Your task to perform on an android device: Clear the cart on amazon. Add "logitech g502" to the cart on amazon, then select checkout. Image 0: 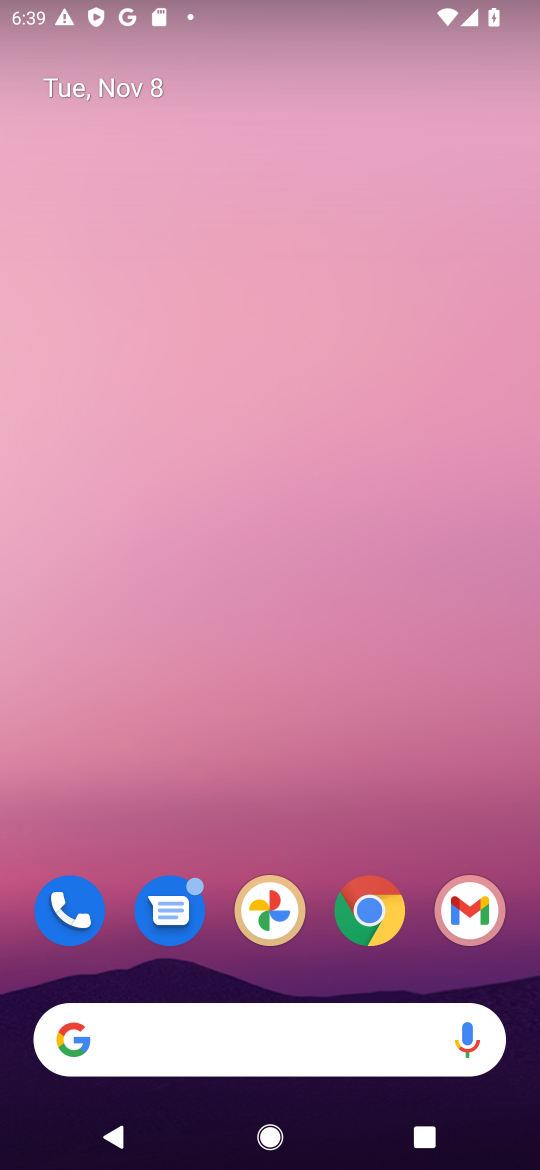
Step 0: click (370, 916)
Your task to perform on an android device: Clear the cart on amazon. Add "logitech g502" to the cart on amazon, then select checkout. Image 1: 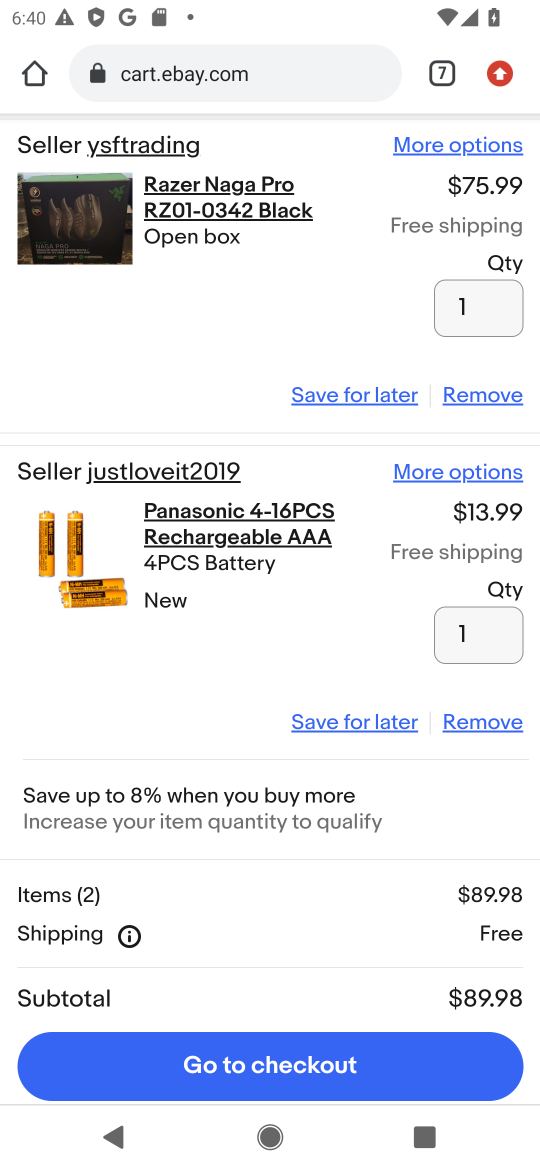
Step 1: click (443, 82)
Your task to perform on an android device: Clear the cart on amazon. Add "logitech g502" to the cart on amazon, then select checkout. Image 2: 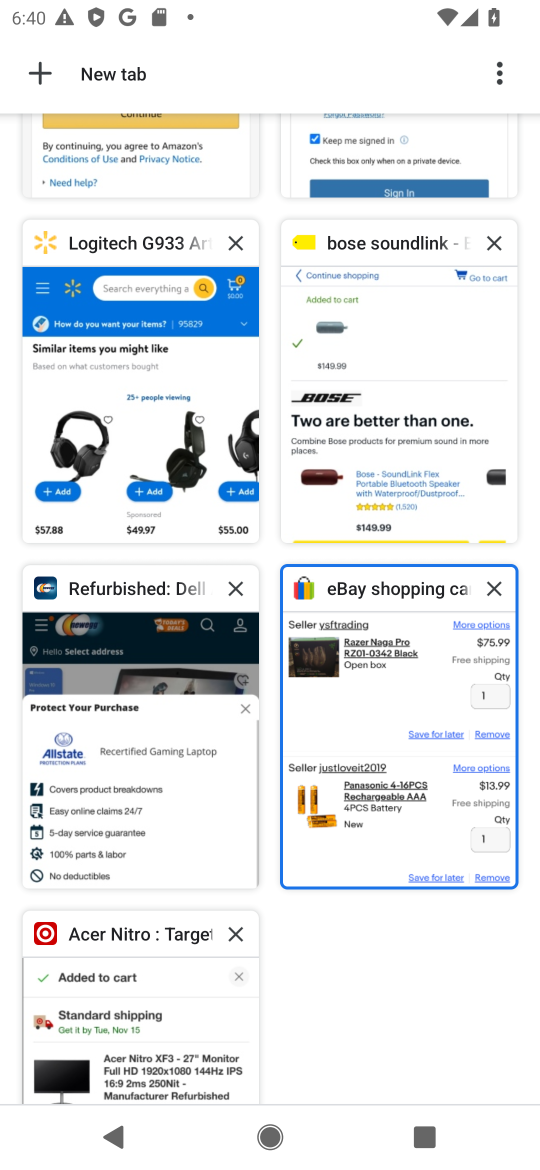
Step 2: click (172, 160)
Your task to perform on an android device: Clear the cart on amazon. Add "logitech g502" to the cart on amazon, then select checkout. Image 3: 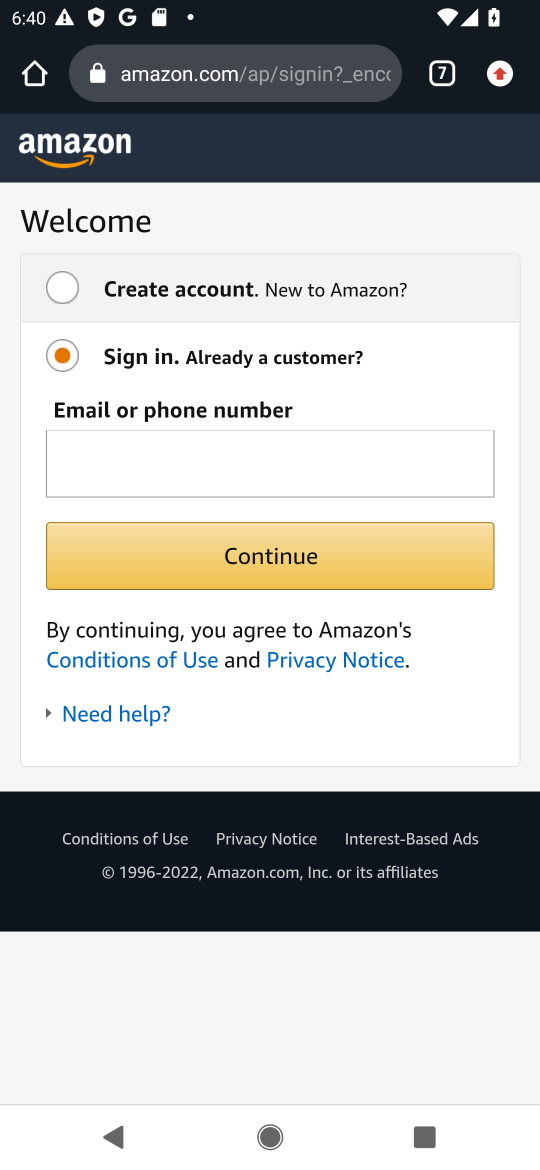
Step 3: press back button
Your task to perform on an android device: Clear the cart on amazon. Add "logitech g502" to the cart on amazon, then select checkout. Image 4: 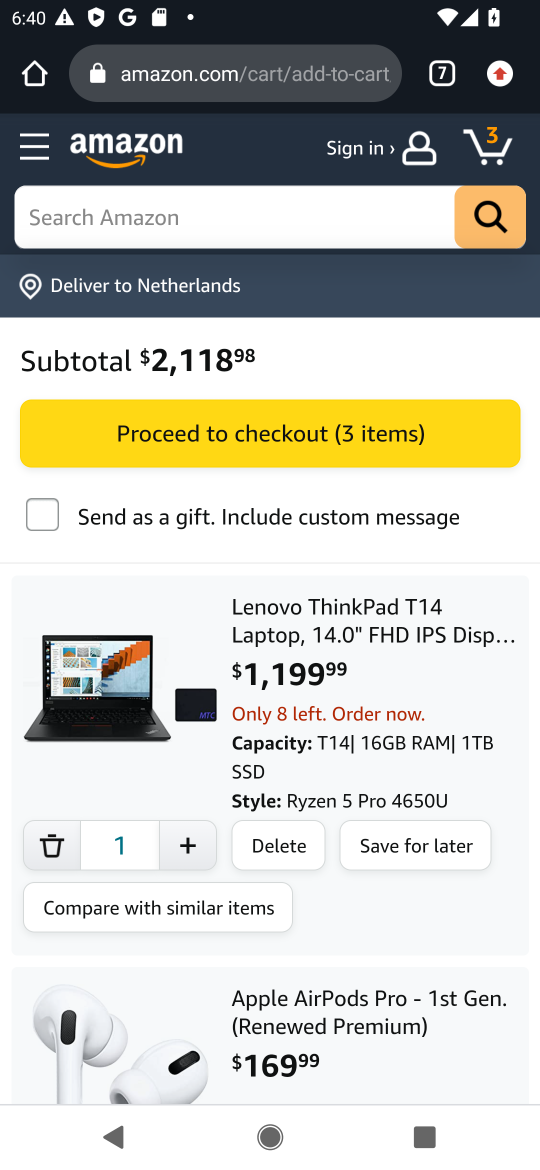
Step 4: click (177, 215)
Your task to perform on an android device: Clear the cart on amazon. Add "logitech g502" to the cart on amazon, then select checkout. Image 5: 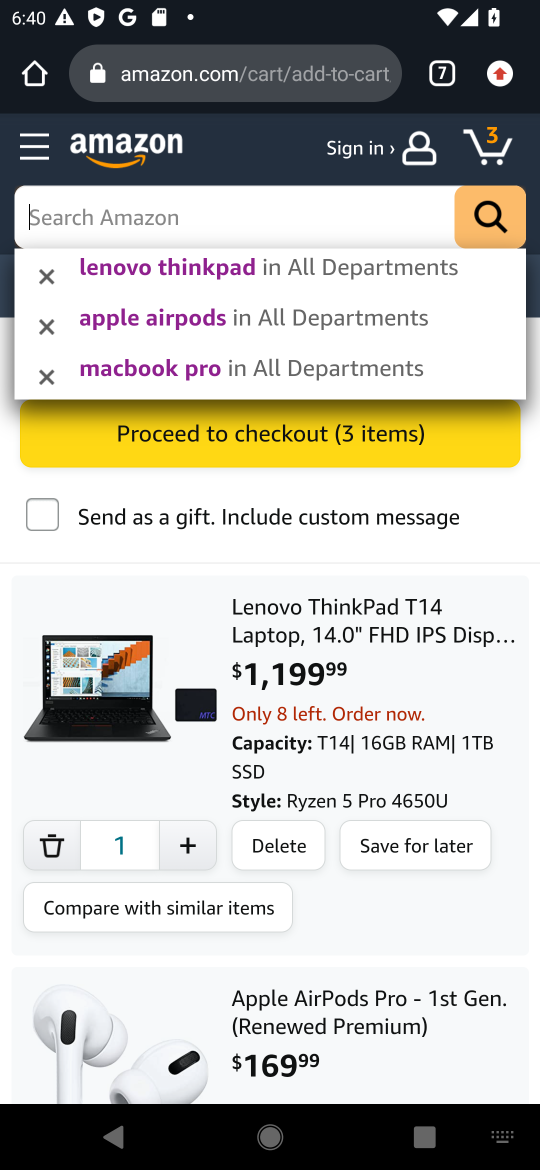
Step 5: type "logitech g502"
Your task to perform on an android device: Clear the cart on amazon. Add "logitech g502" to the cart on amazon, then select checkout. Image 6: 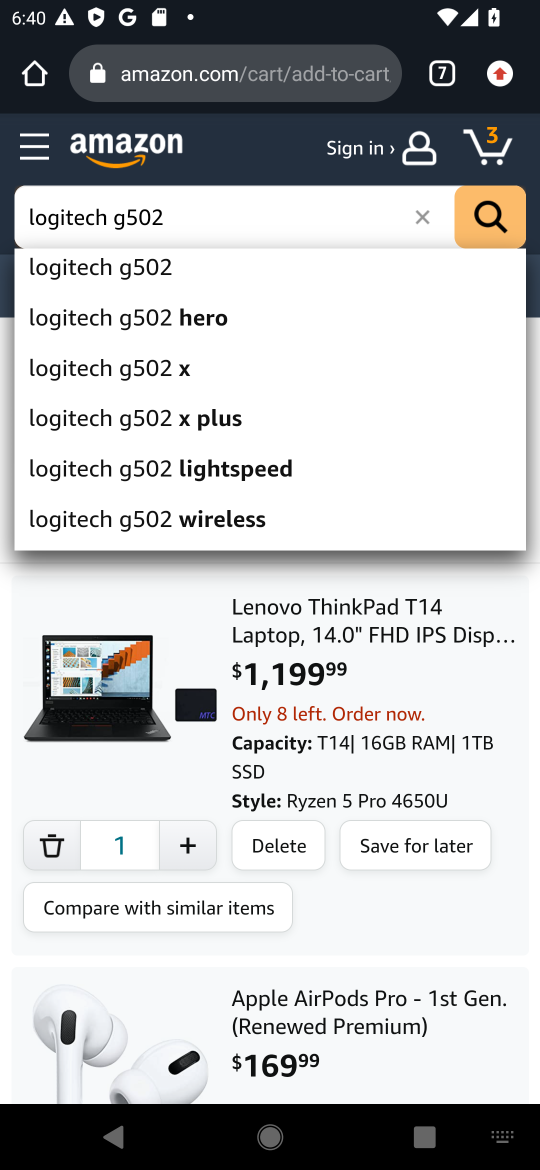
Step 6: click (136, 275)
Your task to perform on an android device: Clear the cart on amazon. Add "logitech g502" to the cart on amazon, then select checkout. Image 7: 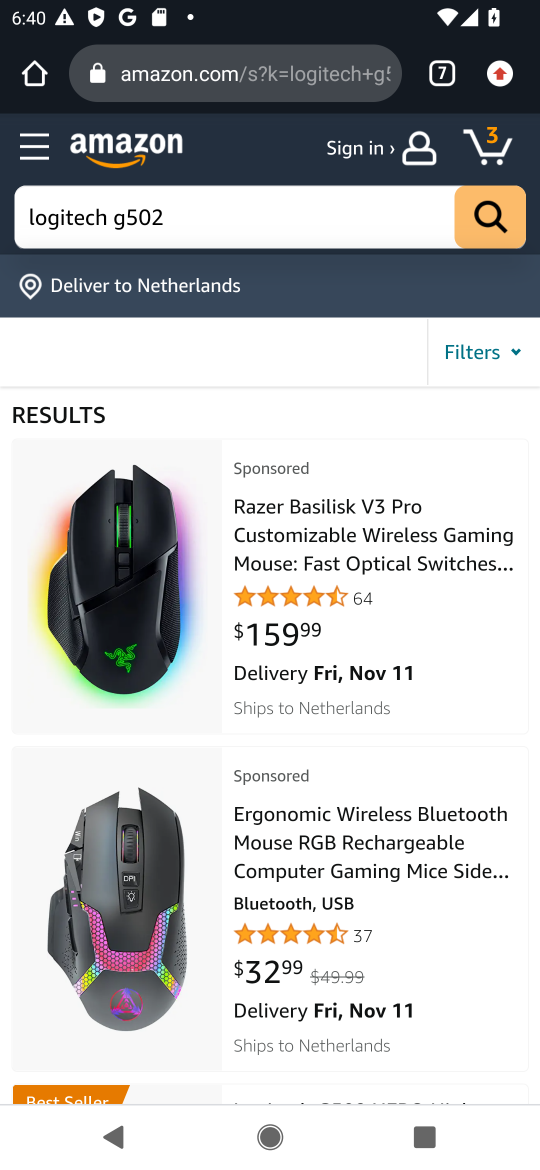
Step 7: drag from (403, 762) to (448, 411)
Your task to perform on an android device: Clear the cart on amazon. Add "logitech g502" to the cart on amazon, then select checkout. Image 8: 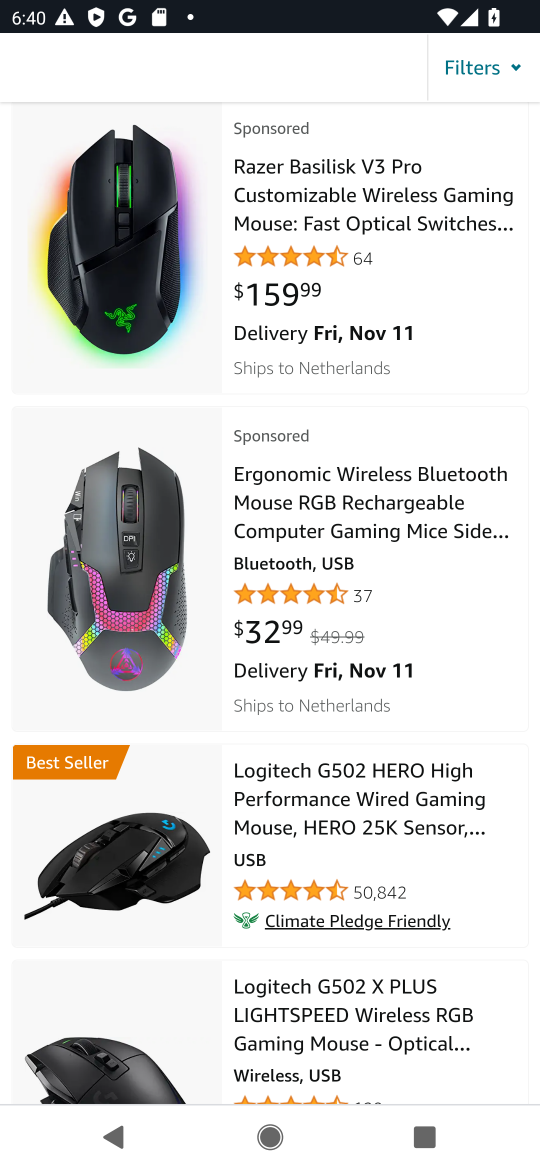
Step 8: click (376, 799)
Your task to perform on an android device: Clear the cart on amazon. Add "logitech g502" to the cart on amazon, then select checkout. Image 9: 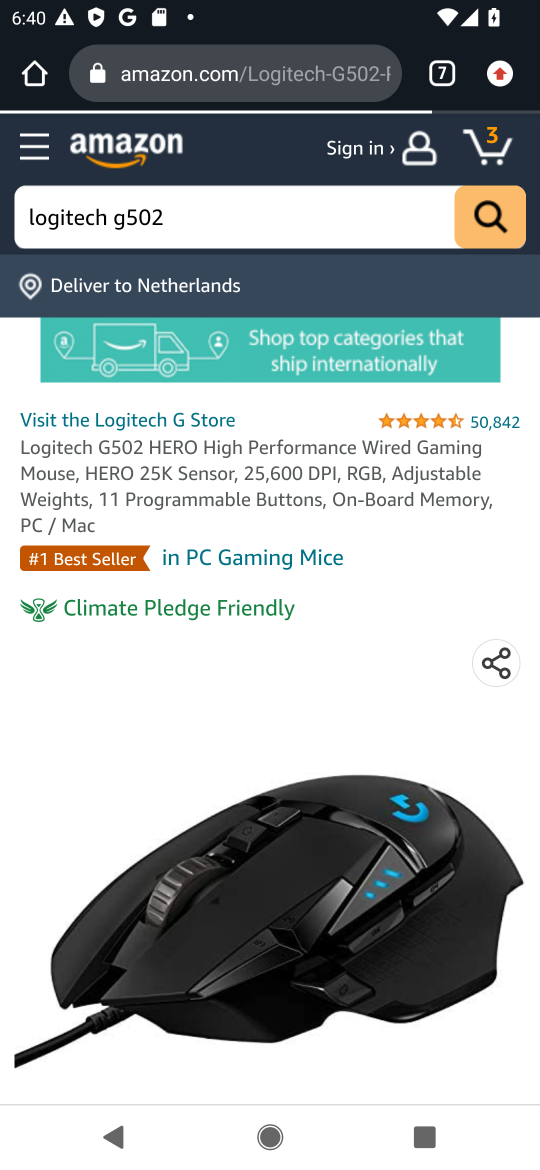
Step 9: drag from (295, 1089) to (382, 333)
Your task to perform on an android device: Clear the cart on amazon. Add "logitech g502" to the cart on amazon, then select checkout. Image 10: 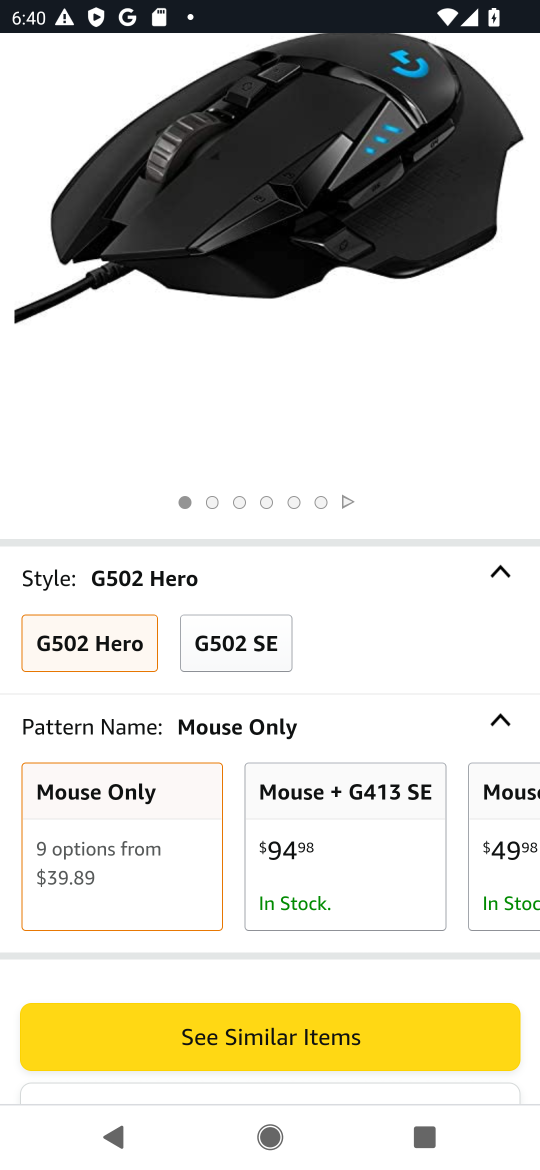
Step 10: click (260, 1031)
Your task to perform on an android device: Clear the cart on amazon. Add "logitech g502" to the cart on amazon, then select checkout. Image 11: 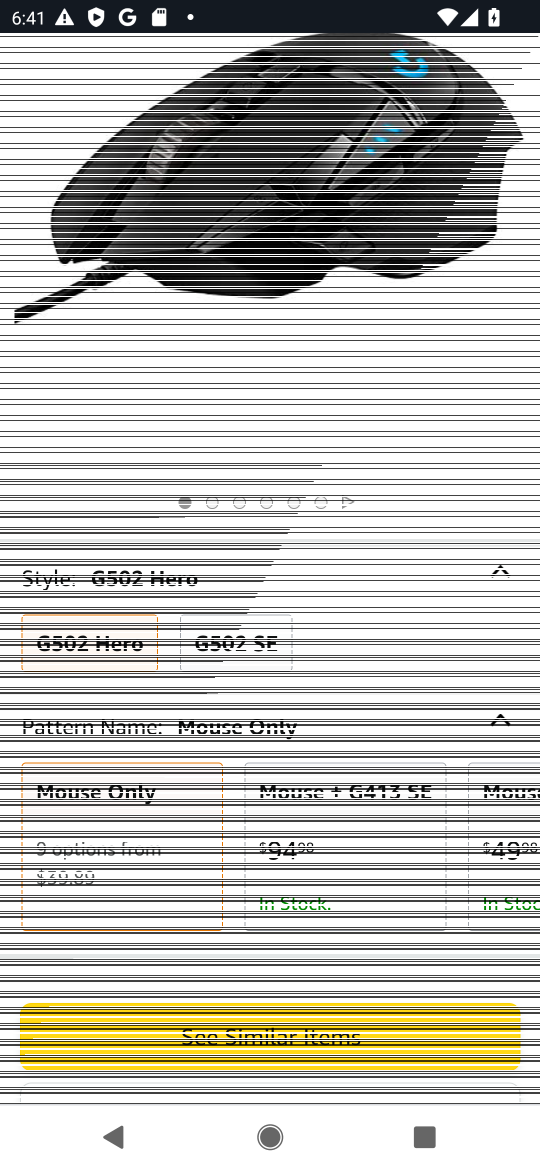
Step 11: click (310, 1037)
Your task to perform on an android device: Clear the cart on amazon. Add "logitech g502" to the cart on amazon, then select checkout. Image 12: 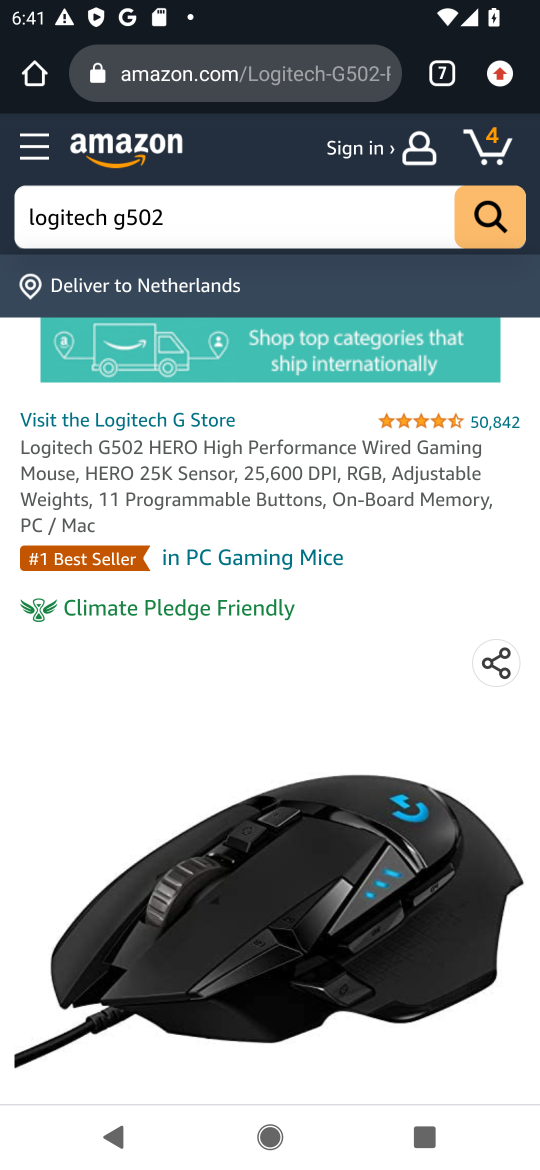
Step 12: click (490, 143)
Your task to perform on an android device: Clear the cart on amazon. Add "logitech g502" to the cart on amazon, then select checkout. Image 13: 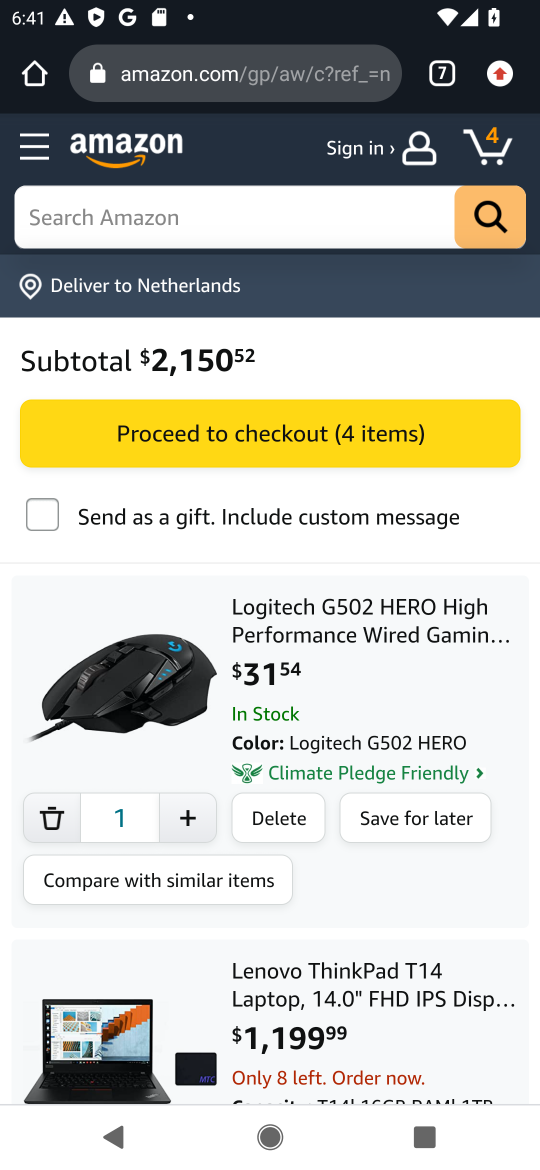
Step 13: drag from (195, 988) to (237, 573)
Your task to perform on an android device: Clear the cart on amazon. Add "logitech g502" to the cart on amazon, then select checkout. Image 14: 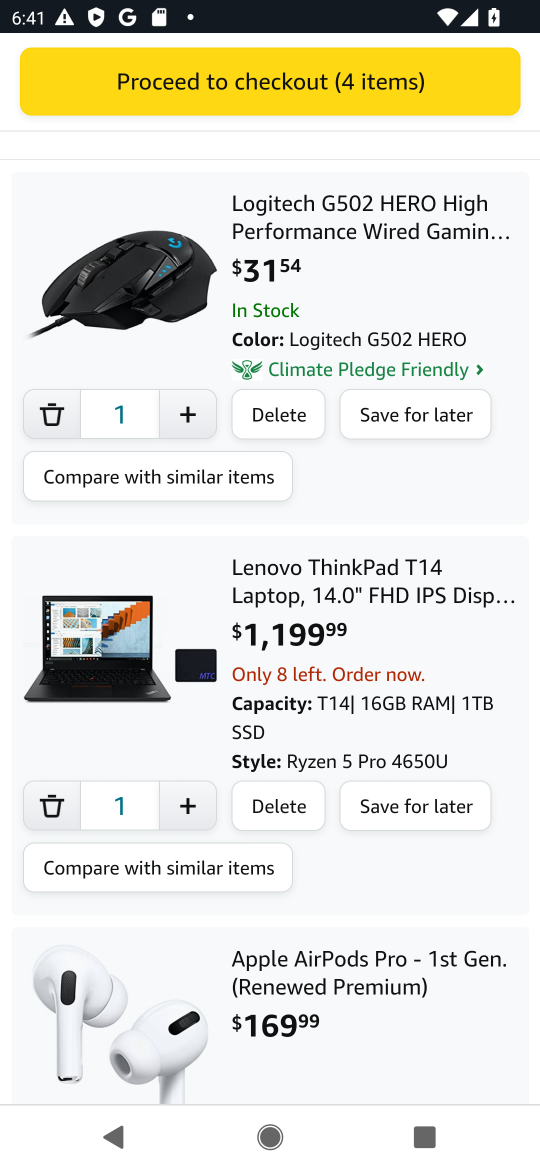
Step 14: click (275, 806)
Your task to perform on an android device: Clear the cart on amazon. Add "logitech g502" to the cart on amazon, then select checkout. Image 15: 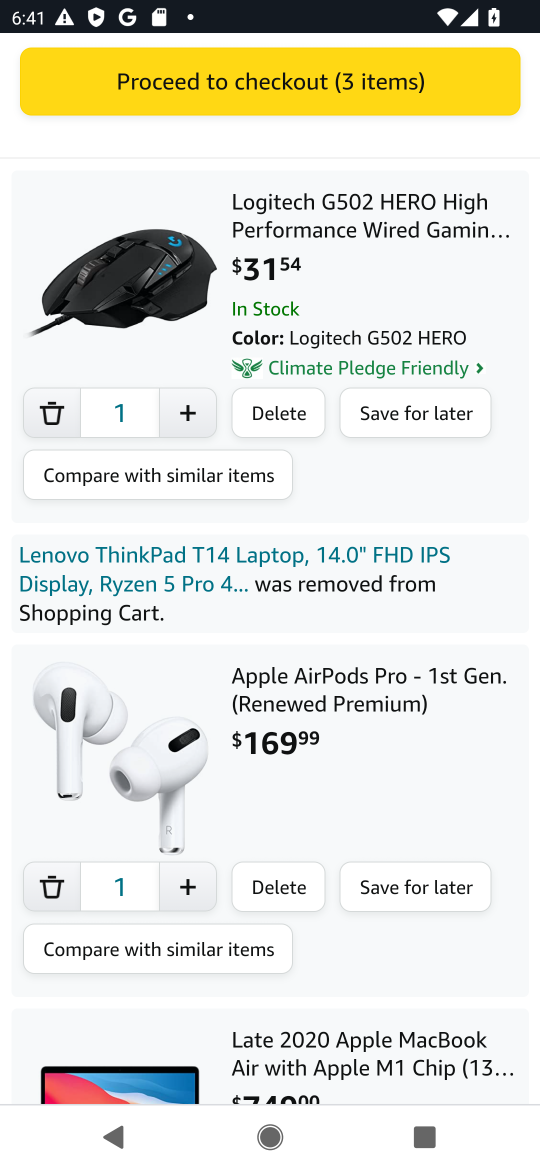
Step 15: click (277, 876)
Your task to perform on an android device: Clear the cart on amazon. Add "logitech g502" to the cart on amazon, then select checkout. Image 16: 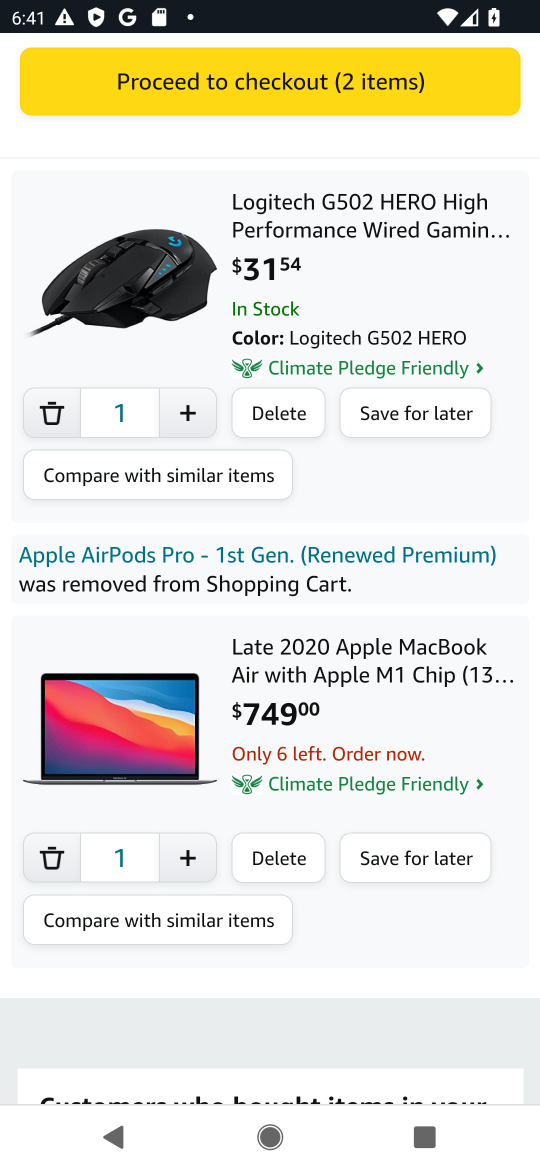
Step 16: click (289, 851)
Your task to perform on an android device: Clear the cart on amazon. Add "logitech g502" to the cart on amazon, then select checkout. Image 17: 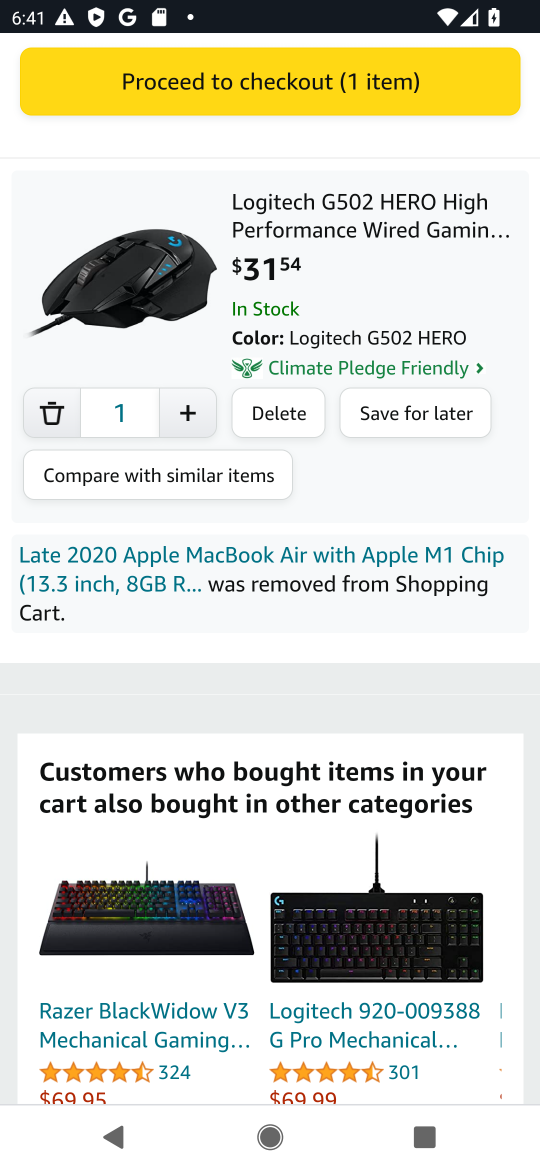
Step 17: click (292, 77)
Your task to perform on an android device: Clear the cart on amazon. Add "logitech g502" to the cart on amazon, then select checkout. Image 18: 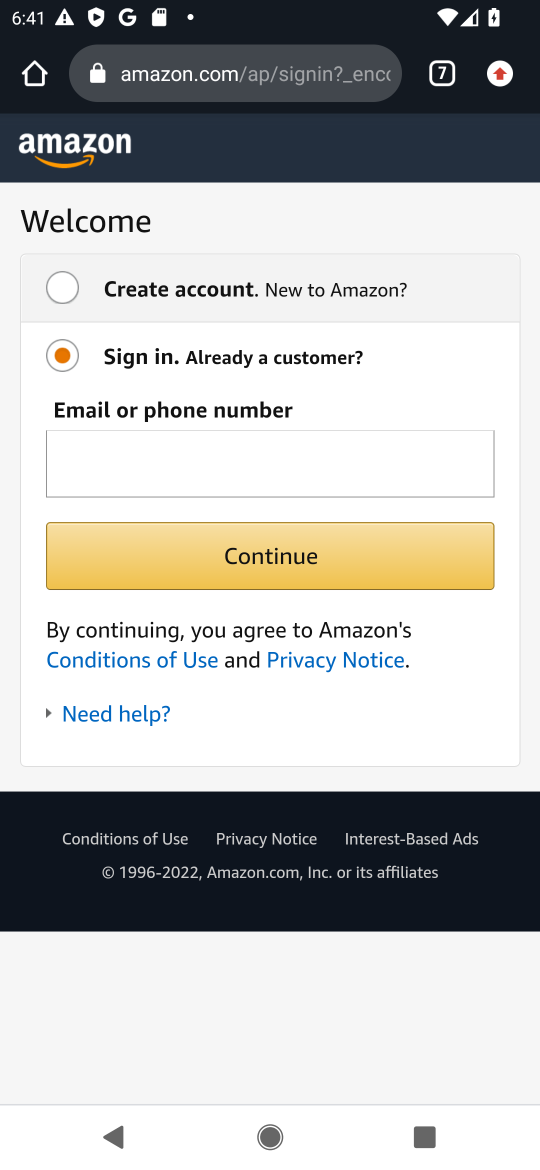
Step 18: task complete